Your task to perform on an android device: see creations saved in the google photos Image 0: 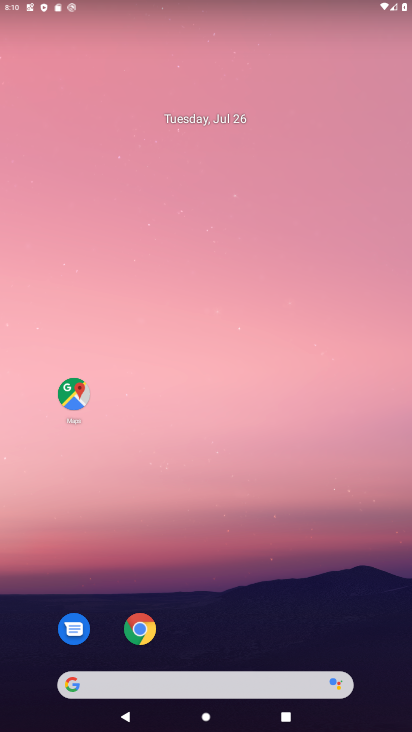
Step 0: press home button
Your task to perform on an android device: see creations saved in the google photos Image 1: 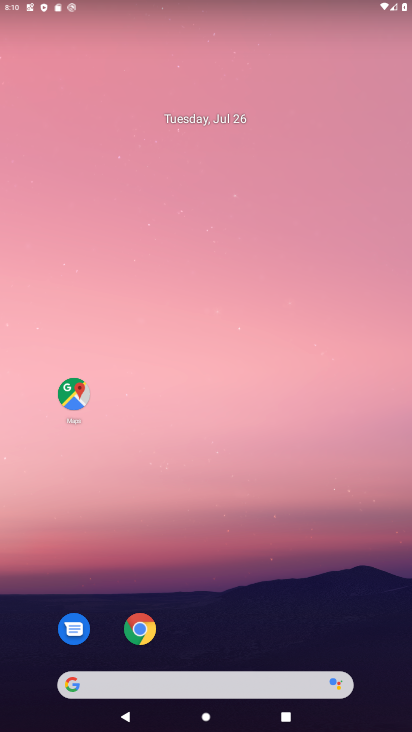
Step 1: drag from (215, 651) to (240, 60)
Your task to perform on an android device: see creations saved in the google photos Image 2: 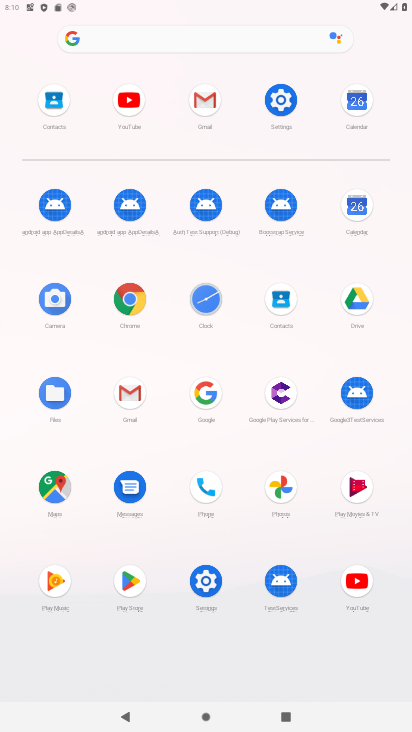
Step 2: click (278, 483)
Your task to perform on an android device: see creations saved in the google photos Image 3: 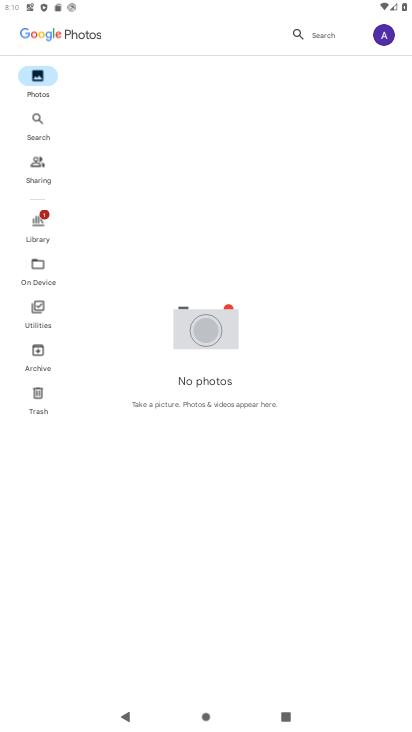
Step 3: click (39, 122)
Your task to perform on an android device: see creations saved in the google photos Image 4: 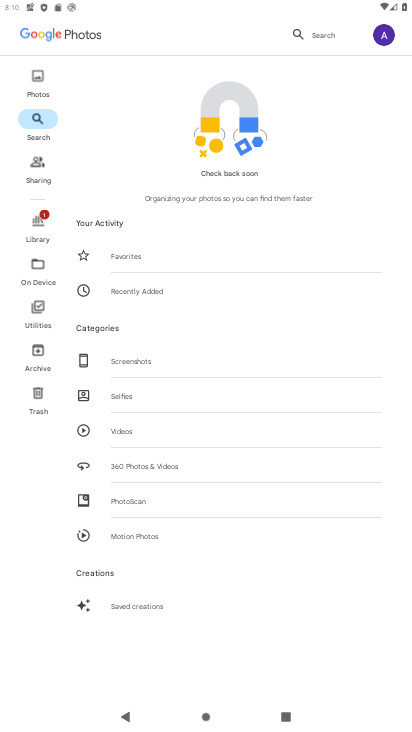
Step 4: click (148, 605)
Your task to perform on an android device: see creations saved in the google photos Image 5: 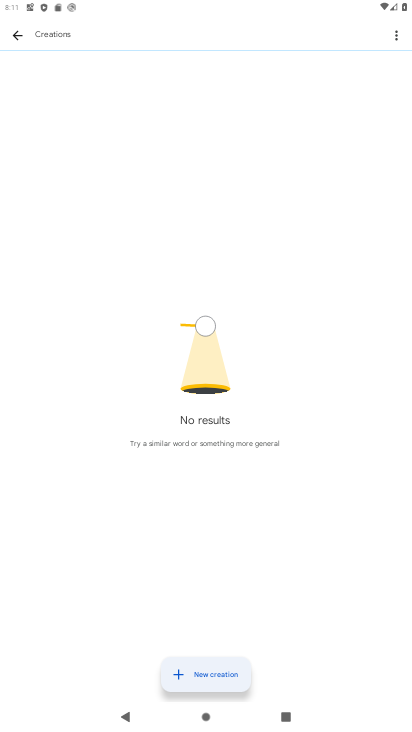
Step 5: task complete